Your task to perform on an android device: Open calendar and show me the third week of next month Image 0: 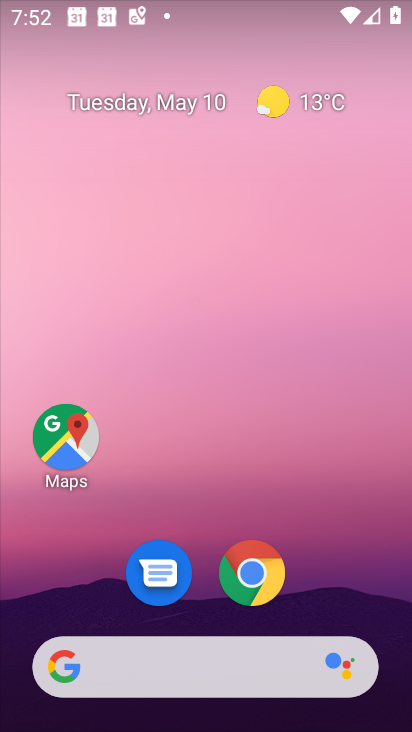
Step 0: drag from (364, 624) to (287, 6)
Your task to perform on an android device: Open calendar and show me the third week of next month Image 1: 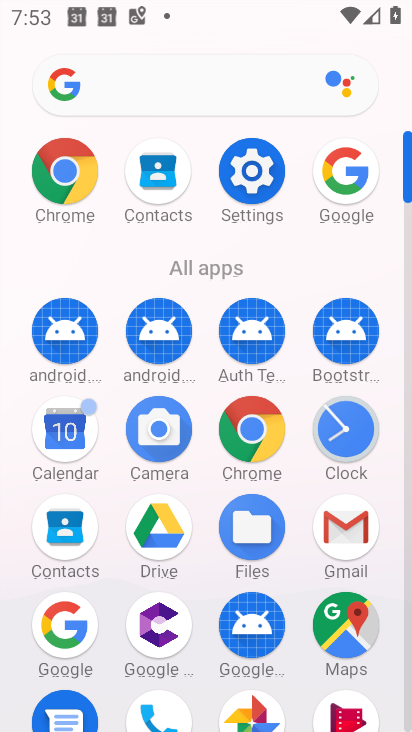
Step 1: click (59, 428)
Your task to perform on an android device: Open calendar and show me the third week of next month Image 2: 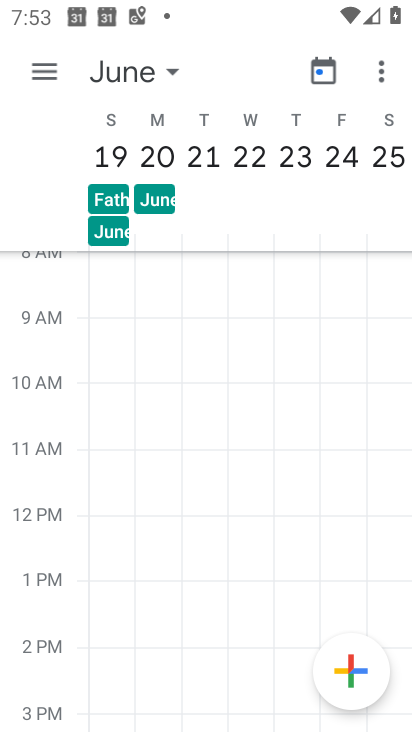
Step 2: task complete